Your task to perform on an android device: Go to privacy settings Image 0: 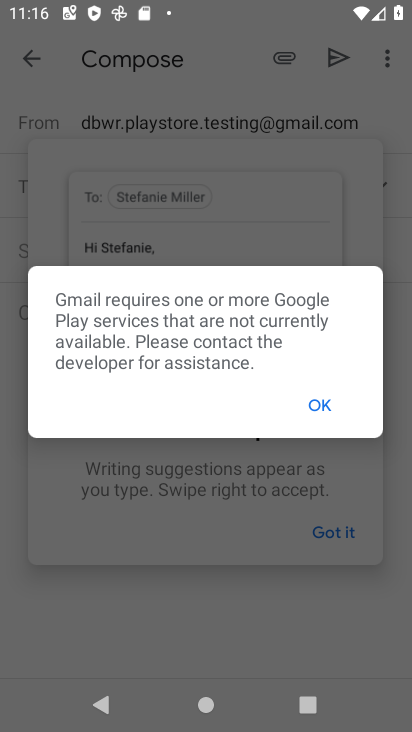
Step 0: press home button
Your task to perform on an android device: Go to privacy settings Image 1: 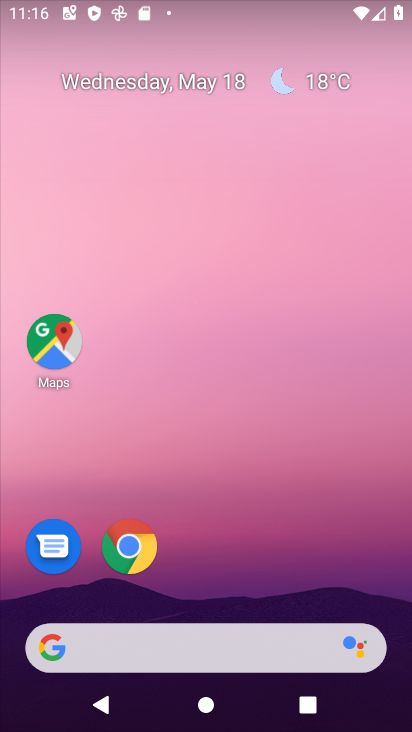
Step 1: drag from (230, 721) to (235, 163)
Your task to perform on an android device: Go to privacy settings Image 2: 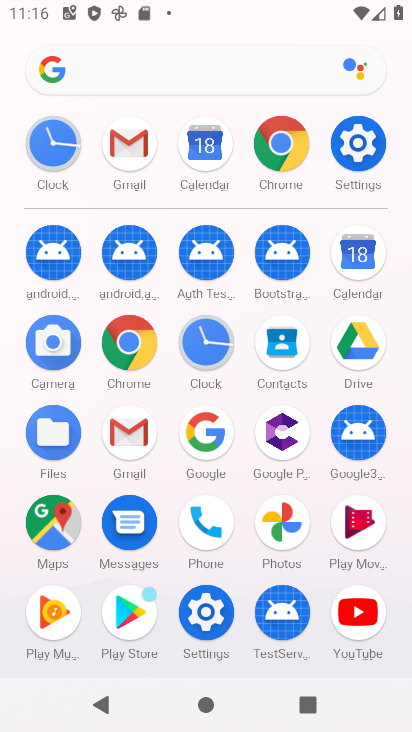
Step 2: click (358, 142)
Your task to perform on an android device: Go to privacy settings Image 3: 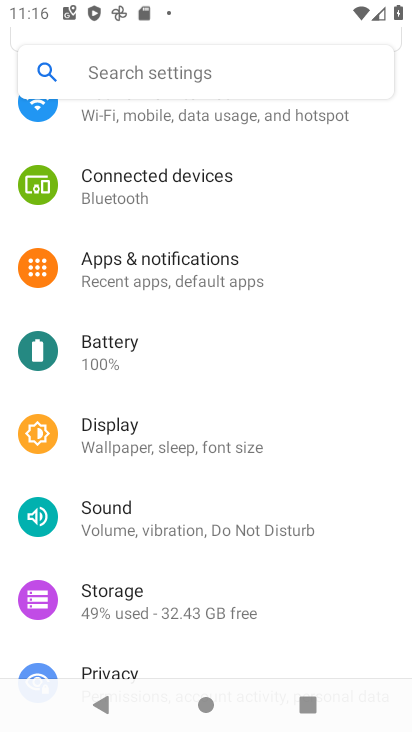
Step 3: click (107, 671)
Your task to perform on an android device: Go to privacy settings Image 4: 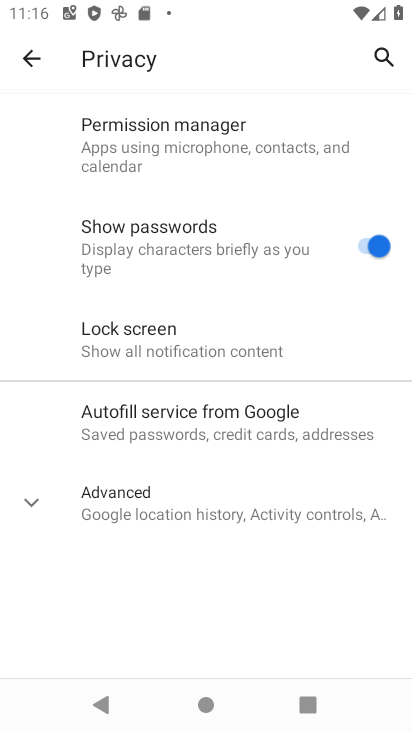
Step 4: task complete